Your task to perform on an android device: change the clock display to digital Image 0: 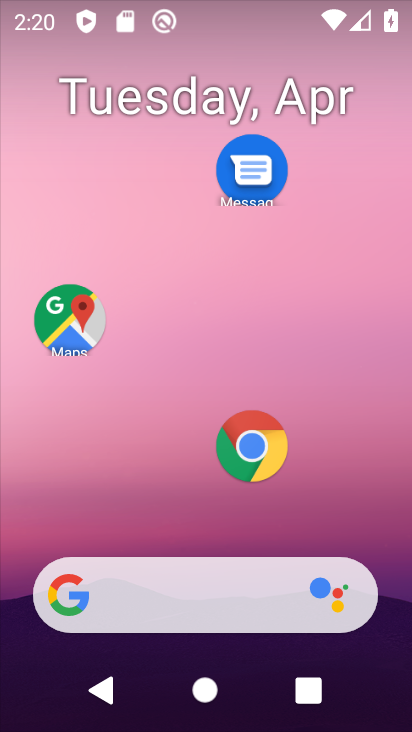
Step 0: drag from (182, 349) to (229, 49)
Your task to perform on an android device: change the clock display to digital Image 1: 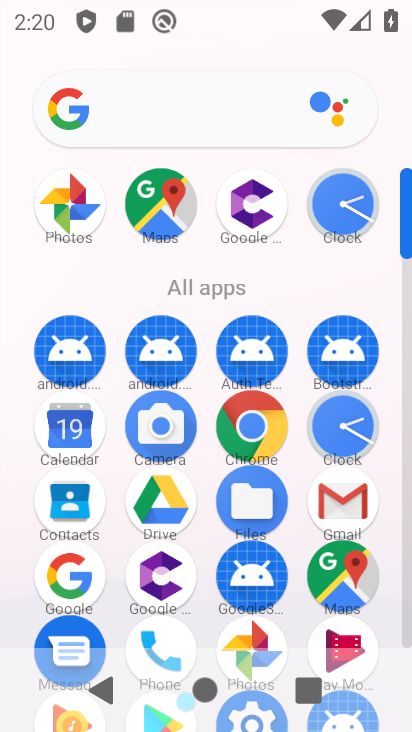
Step 1: click (335, 206)
Your task to perform on an android device: change the clock display to digital Image 2: 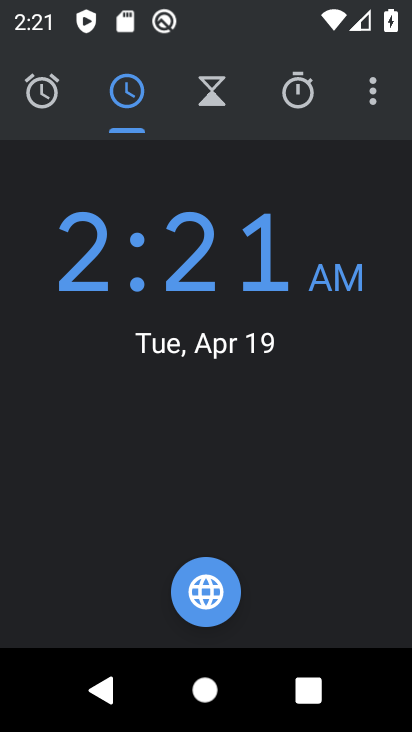
Step 2: click (375, 91)
Your task to perform on an android device: change the clock display to digital Image 3: 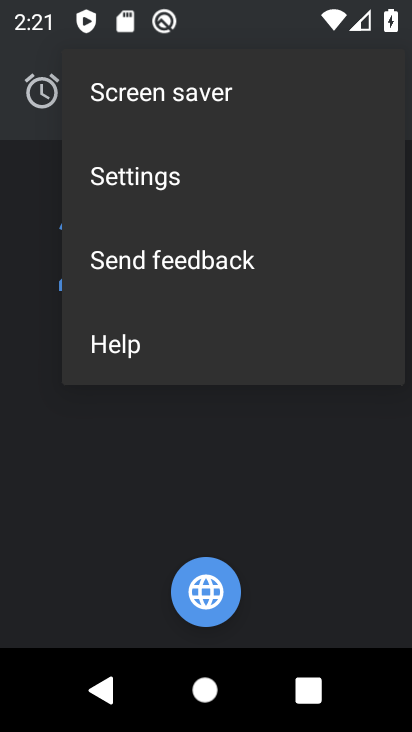
Step 3: click (171, 182)
Your task to perform on an android device: change the clock display to digital Image 4: 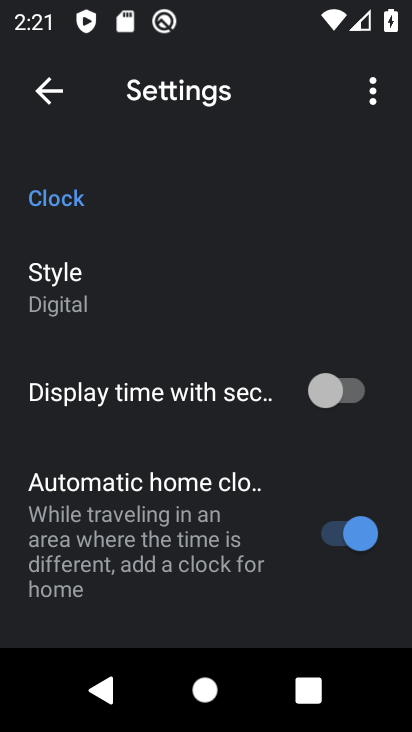
Step 4: click (86, 308)
Your task to perform on an android device: change the clock display to digital Image 5: 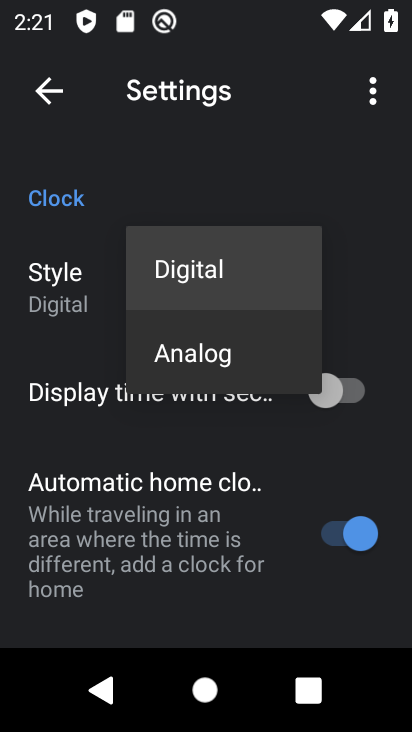
Step 5: click (204, 273)
Your task to perform on an android device: change the clock display to digital Image 6: 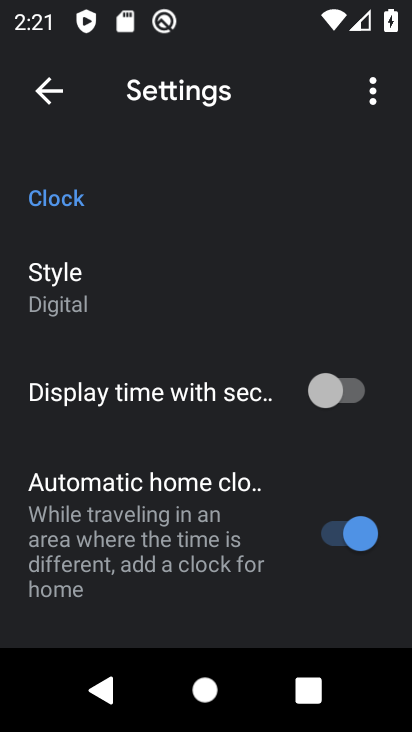
Step 6: task complete